Your task to perform on an android device: Open calendar and show me the third week of next month Image 0: 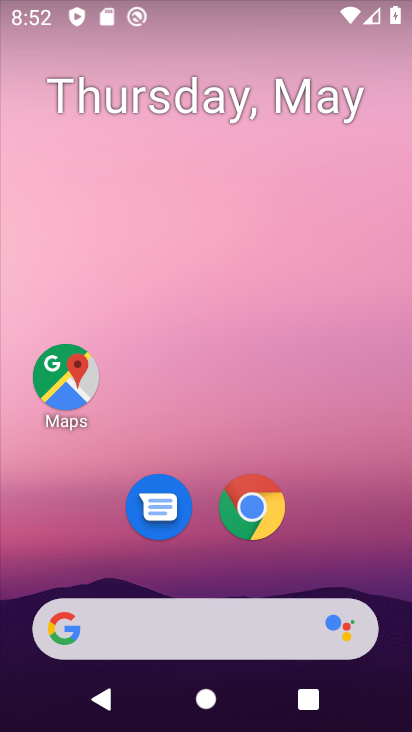
Step 0: drag from (212, 556) to (219, 59)
Your task to perform on an android device: Open calendar and show me the third week of next month Image 1: 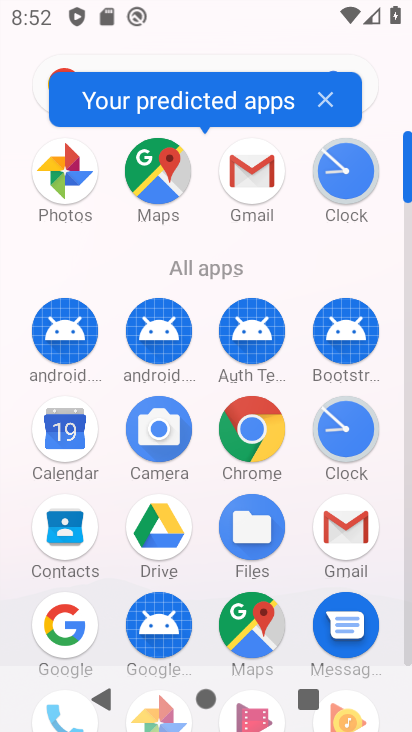
Step 1: click (58, 430)
Your task to perform on an android device: Open calendar and show me the third week of next month Image 2: 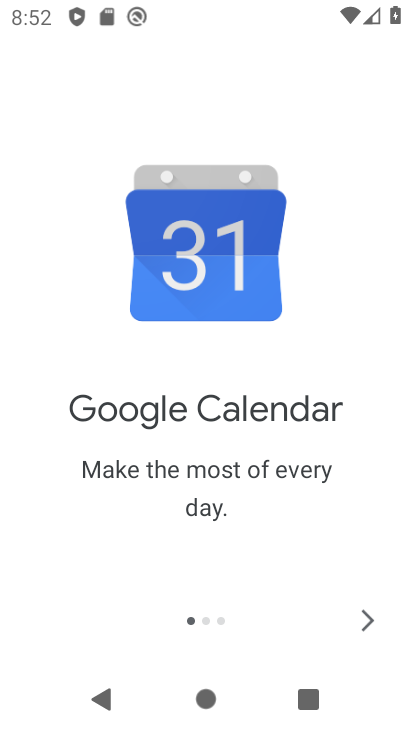
Step 2: click (356, 597)
Your task to perform on an android device: Open calendar and show me the third week of next month Image 3: 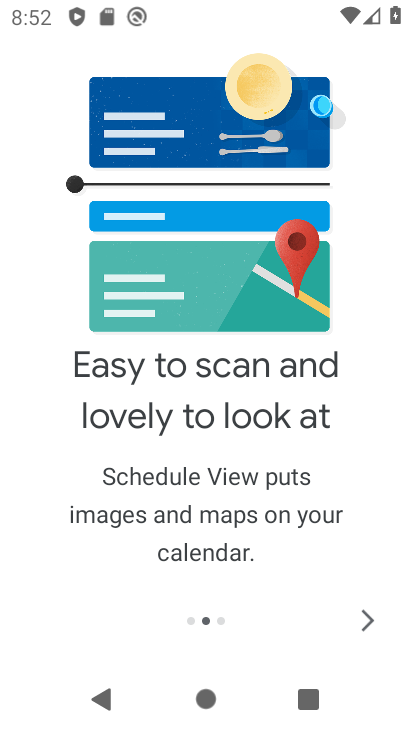
Step 3: click (368, 610)
Your task to perform on an android device: Open calendar and show me the third week of next month Image 4: 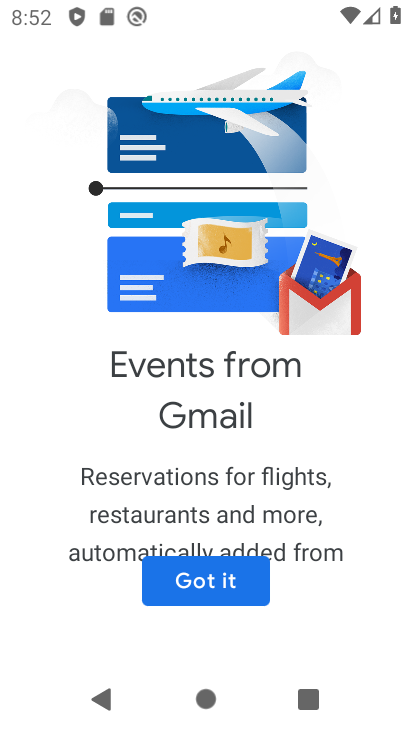
Step 4: click (210, 594)
Your task to perform on an android device: Open calendar and show me the third week of next month Image 5: 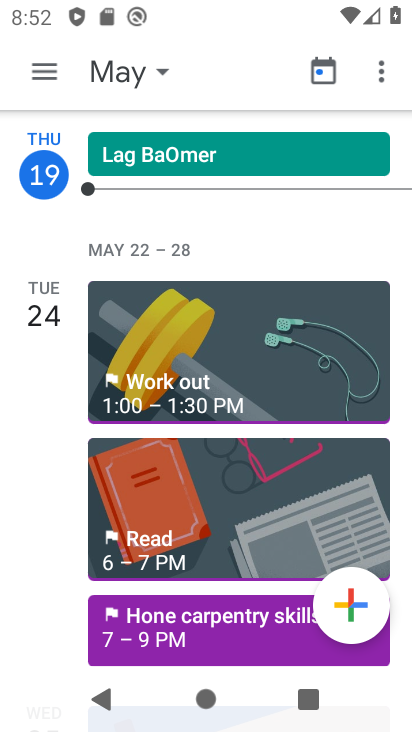
Step 5: click (103, 70)
Your task to perform on an android device: Open calendar and show me the third week of next month Image 6: 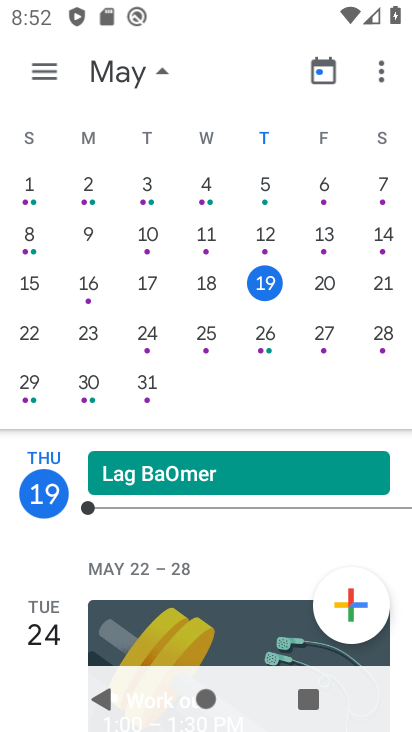
Step 6: drag from (385, 298) to (4, 326)
Your task to perform on an android device: Open calendar and show me the third week of next month Image 7: 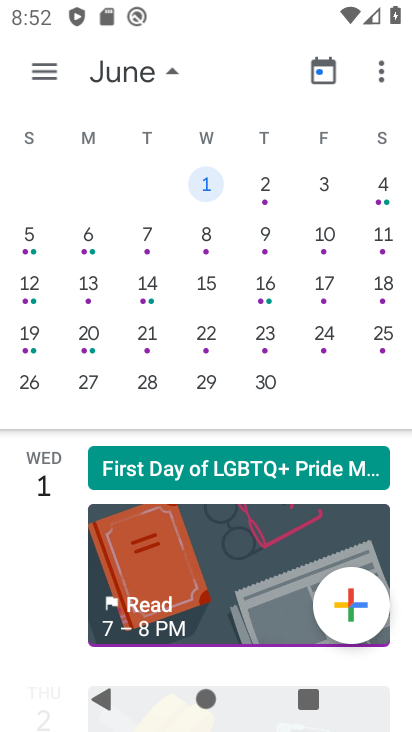
Step 7: click (34, 294)
Your task to perform on an android device: Open calendar and show me the third week of next month Image 8: 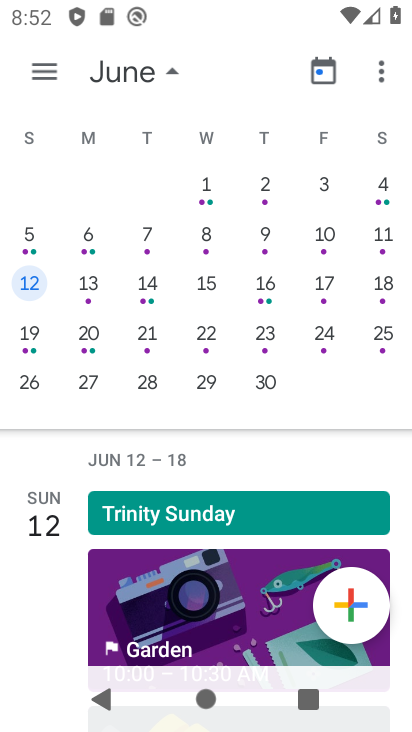
Step 8: task complete